Your task to perform on an android device: check storage Image 0: 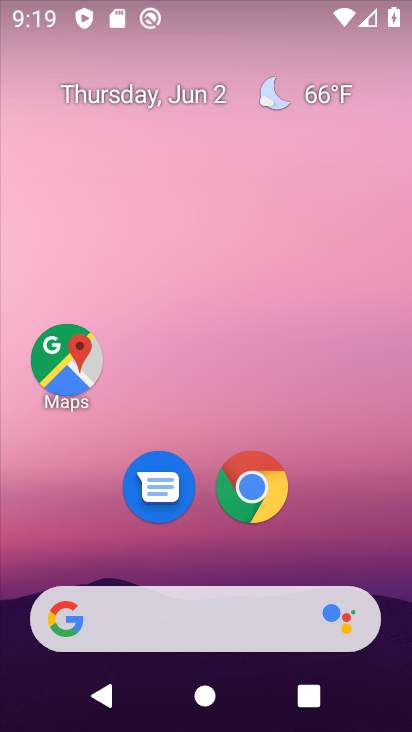
Step 0: drag from (232, 730) to (208, 30)
Your task to perform on an android device: check storage Image 1: 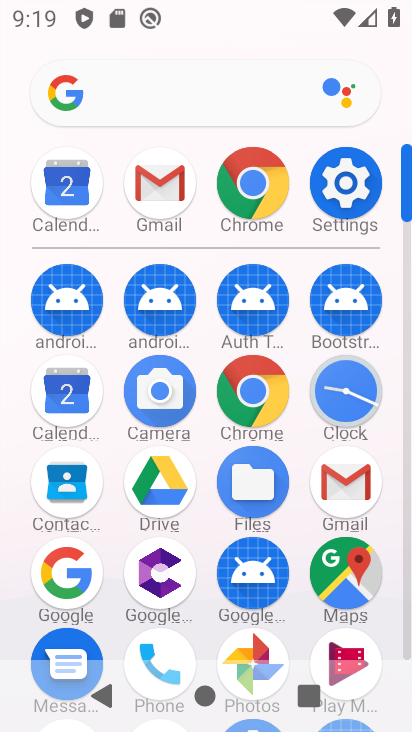
Step 1: click (350, 183)
Your task to perform on an android device: check storage Image 2: 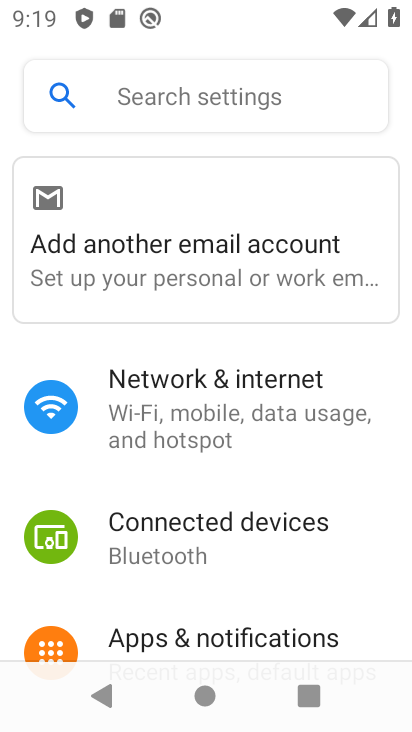
Step 2: drag from (210, 639) to (210, 306)
Your task to perform on an android device: check storage Image 3: 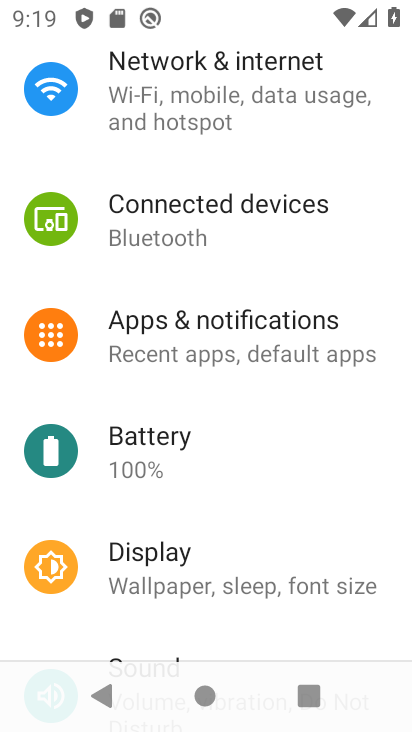
Step 3: drag from (209, 635) to (210, 326)
Your task to perform on an android device: check storage Image 4: 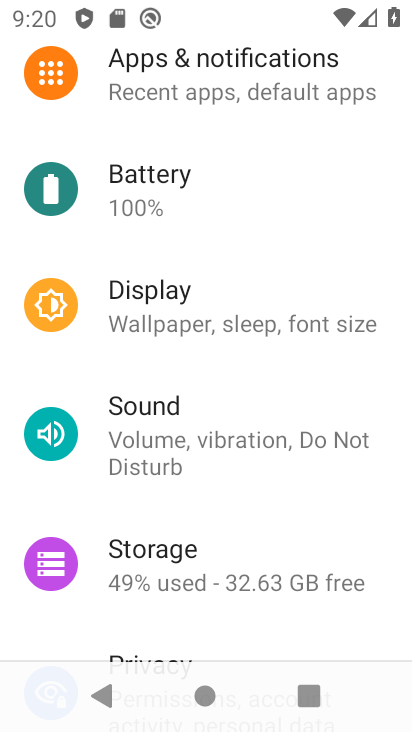
Step 4: click (158, 550)
Your task to perform on an android device: check storage Image 5: 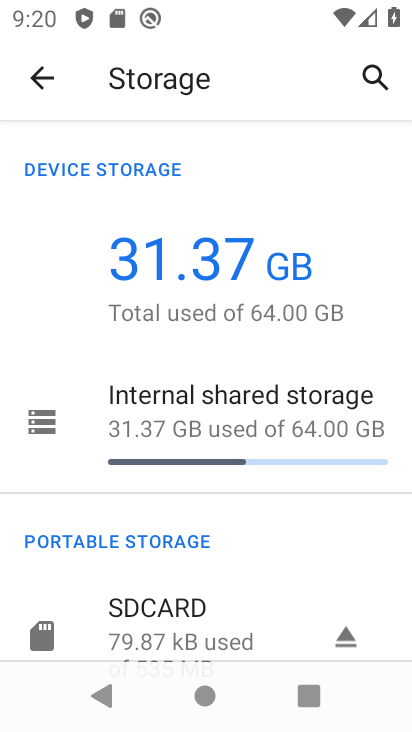
Step 5: task complete